Your task to perform on an android device: Open calendar and show me the fourth week of next month Image 0: 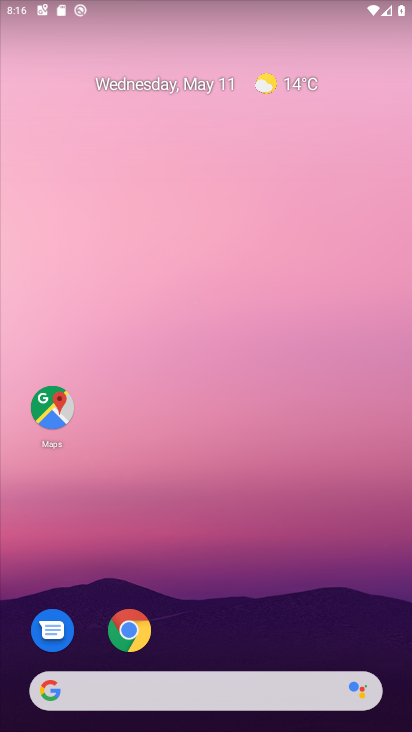
Step 0: press home button
Your task to perform on an android device: Open calendar and show me the fourth week of next month Image 1: 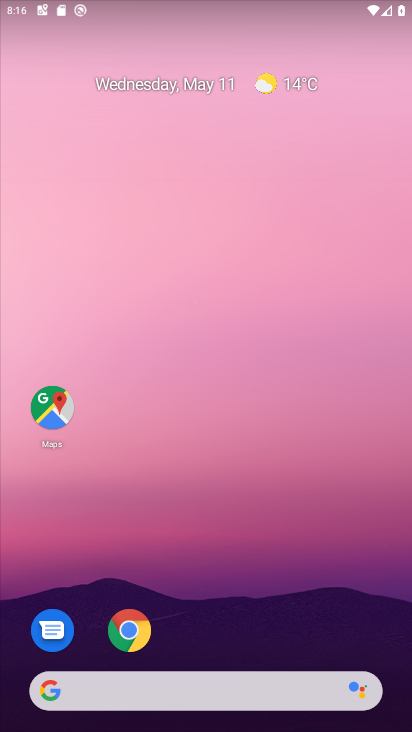
Step 1: drag from (19, 631) to (232, 131)
Your task to perform on an android device: Open calendar and show me the fourth week of next month Image 2: 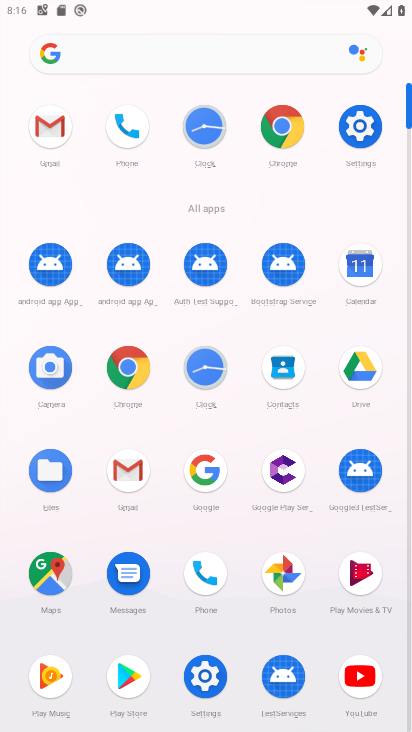
Step 2: click (351, 274)
Your task to perform on an android device: Open calendar and show me the fourth week of next month Image 3: 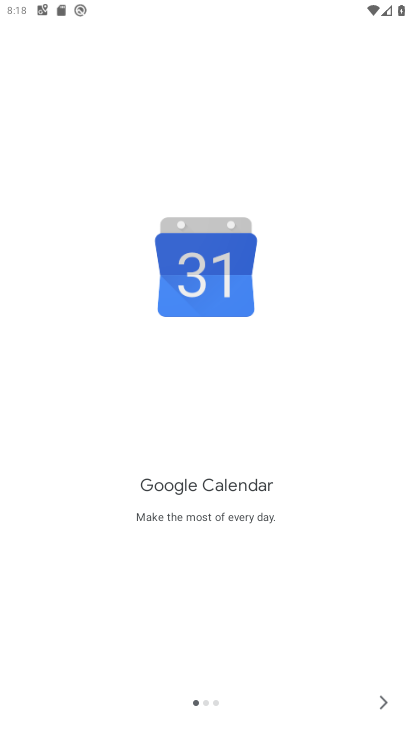
Step 3: click (389, 699)
Your task to perform on an android device: Open calendar and show me the fourth week of next month Image 4: 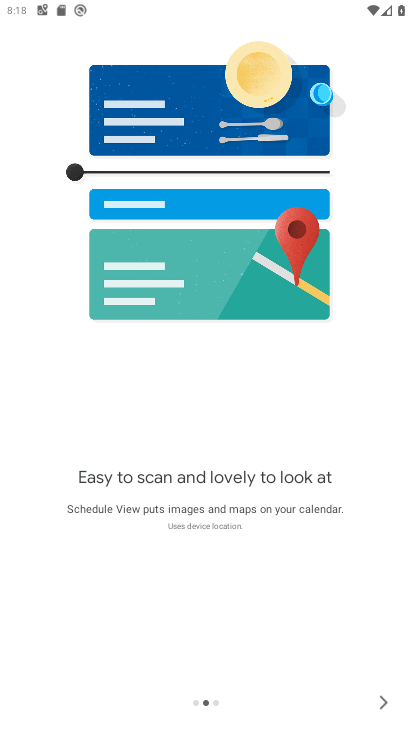
Step 4: click (389, 698)
Your task to perform on an android device: Open calendar and show me the fourth week of next month Image 5: 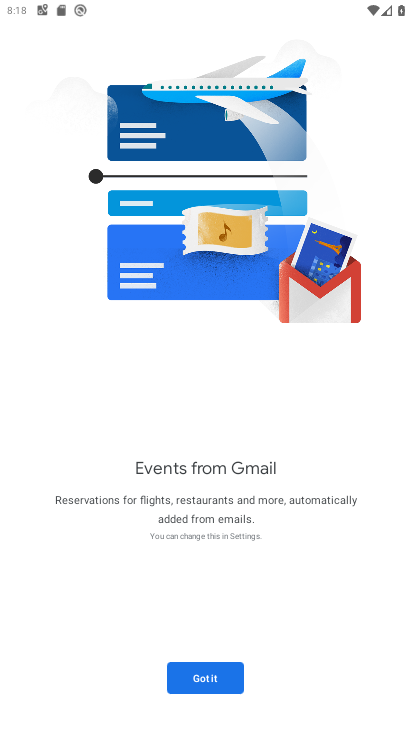
Step 5: click (214, 667)
Your task to perform on an android device: Open calendar and show me the fourth week of next month Image 6: 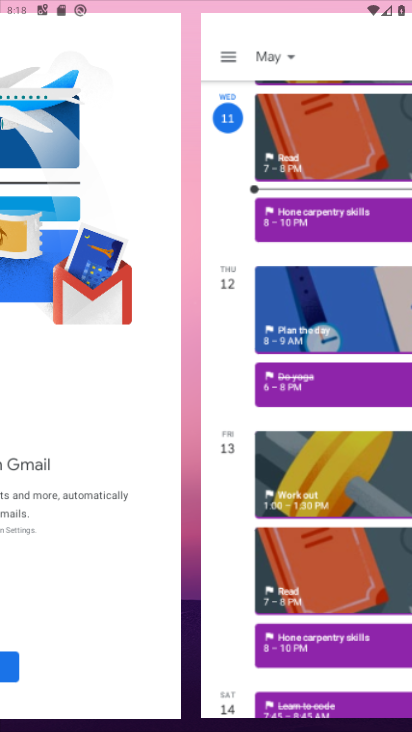
Step 6: click (213, 676)
Your task to perform on an android device: Open calendar and show me the fourth week of next month Image 7: 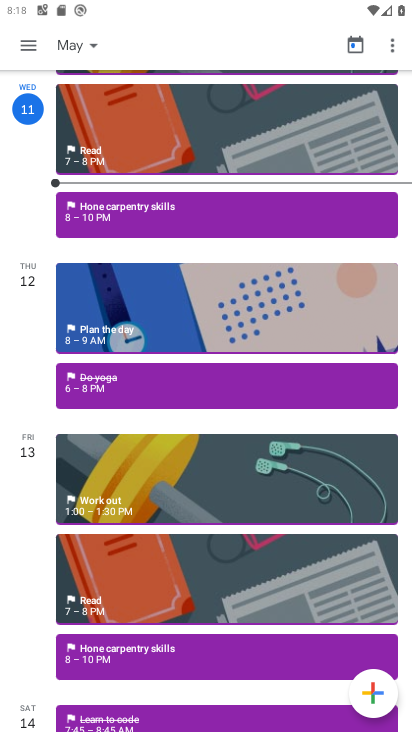
Step 7: click (89, 41)
Your task to perform on an android device: Open calendar and show me the fourth week of next month Image 8: 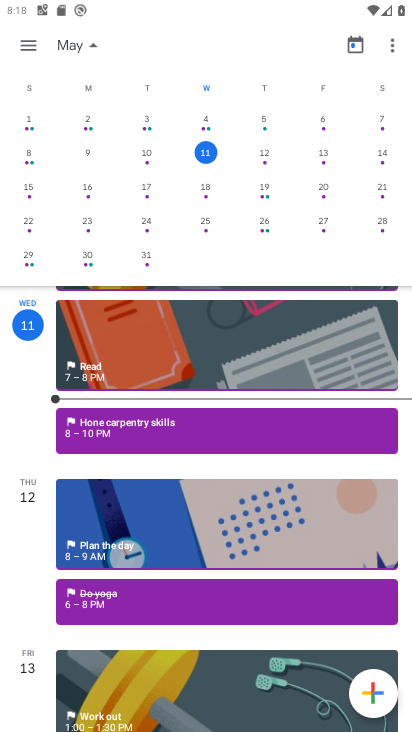
Step 8: drag from (390, 143) to (4, 144)
Your task to perform on an android device: Open calendar and show me the fourth week of next month Image 9: 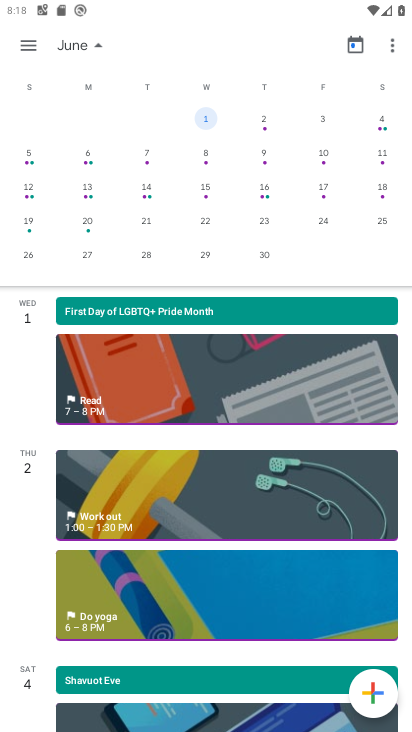
Step 9: click (196, 227)
Your task to perform on an android device: Open calendar and show me the fourth week of next month Image 10: 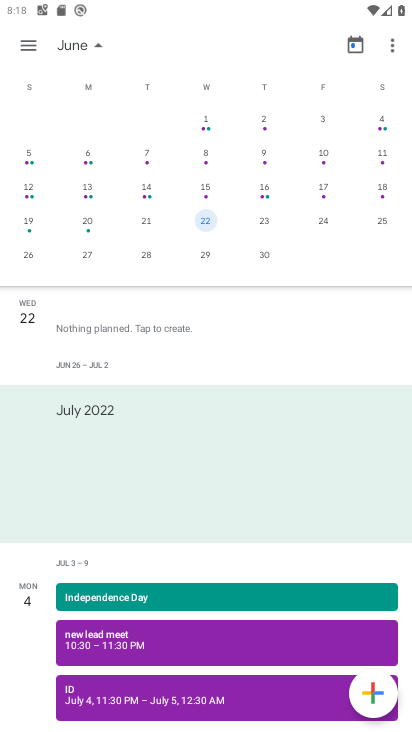
Step 10: click (93, 221)
Your task to perform on an android device: Open calendar and show me the fourth week of next month Image 11: 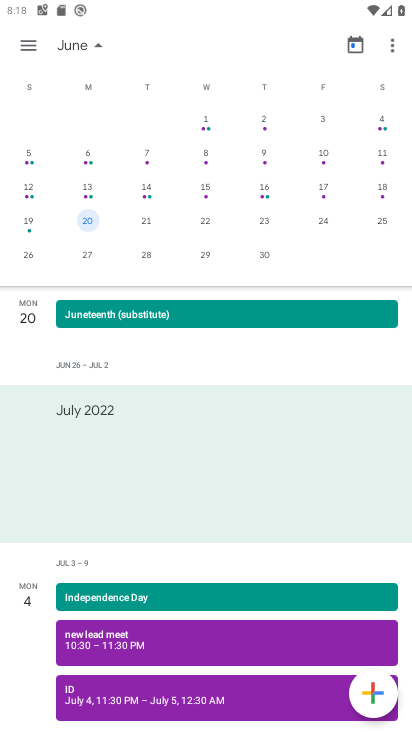
Step 11: click (149, 223)
Your task to perform on an android device: Open calendar and show me the fourth week of next month Image 12: 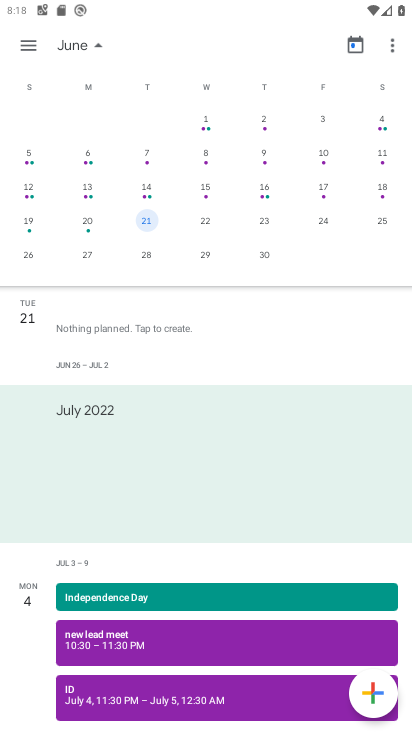
Step 12: click (200, 223)
Your task to perform on an android device: Open calendar and show me the fourth week of next month Image 13: 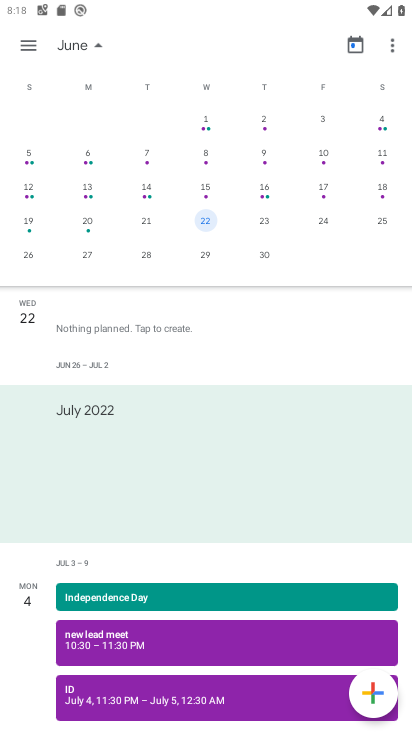
Step 13: click (266, 221)
Your task to perform on an android device: Open calendar and show me the fourth week of next month Image 14: 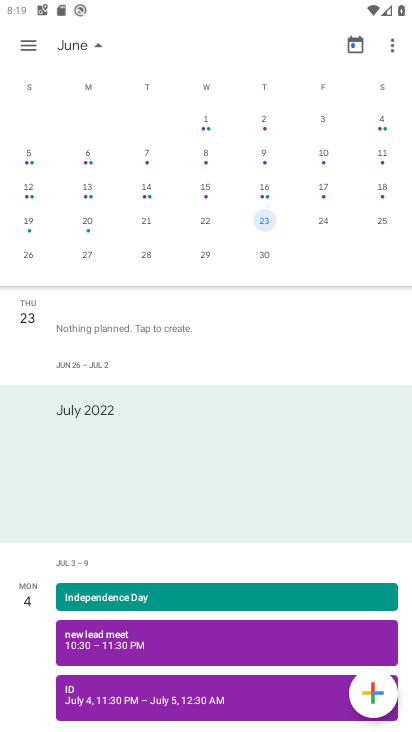
Step 14: click (323, 218)
Your task to perform on an android device: Open calendar and show me the fourth week of next month Image 15: 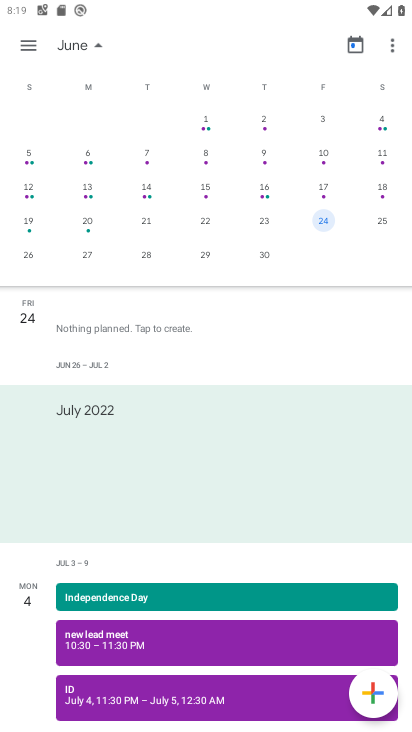
Step 15: task complete